Your task to perform on an android device: toggle location history Image 0: 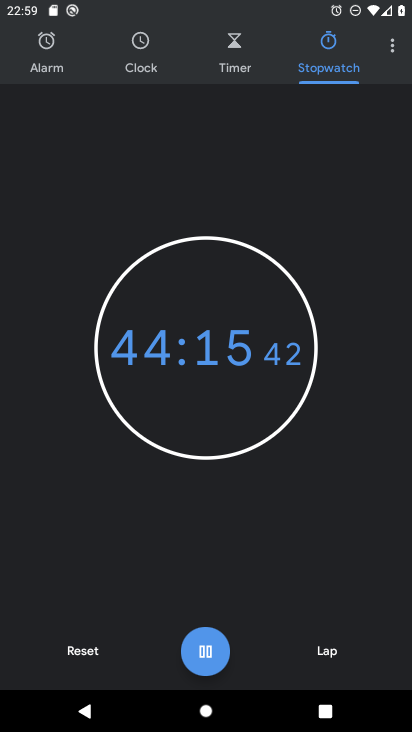
Step 0: press home button
Your task to perform on an android device: toggle location history Image 1: 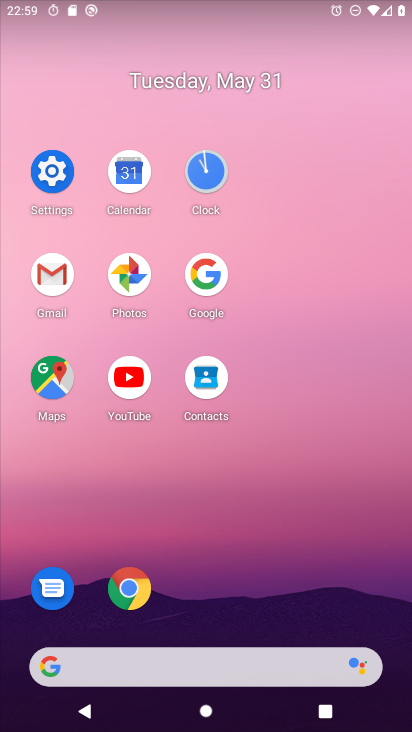
Step 1: click (57, 181)
Your task to perform on an android device: toggle location history Image 2: 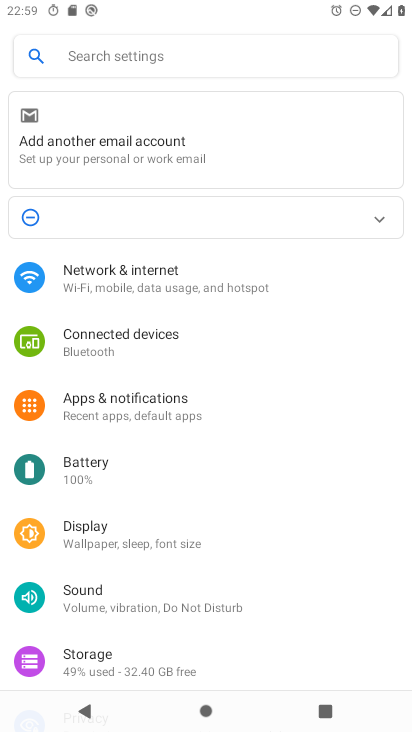
Step 2: drag from (213, 600) to (213, 243)
Your task to perform on an android device: toggle location history Image 3: 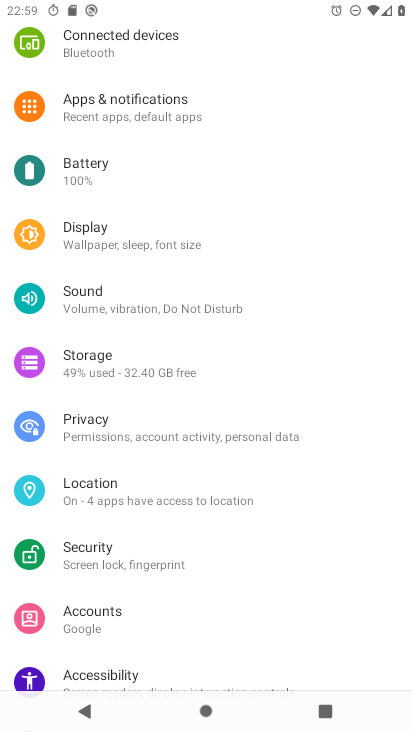
Step 3: click (175, 503)
Your task to perform on an android device: toggle location history Image 4: 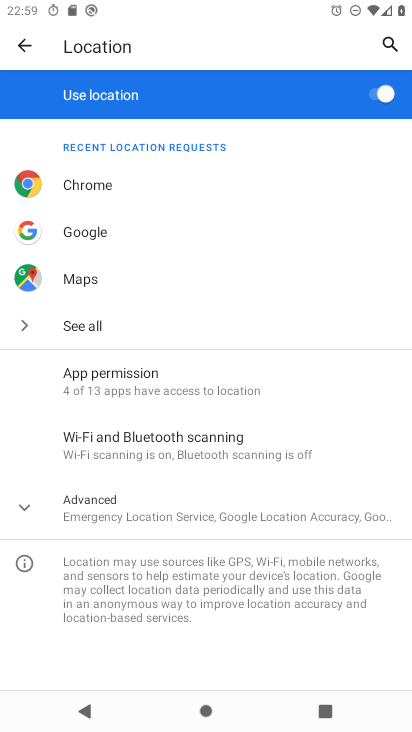
Step 4: click (175, 503)
Your task to perform on an android device: toggle location history Image 5: 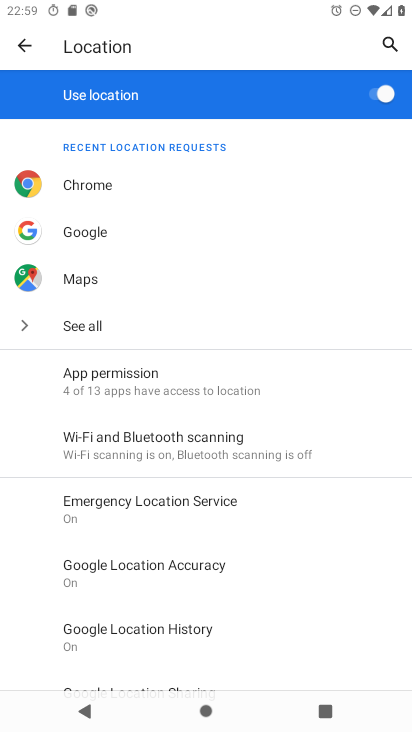
Step 5: click (167, 627)
Your task to perform on an android device: toggle location history Image 6: 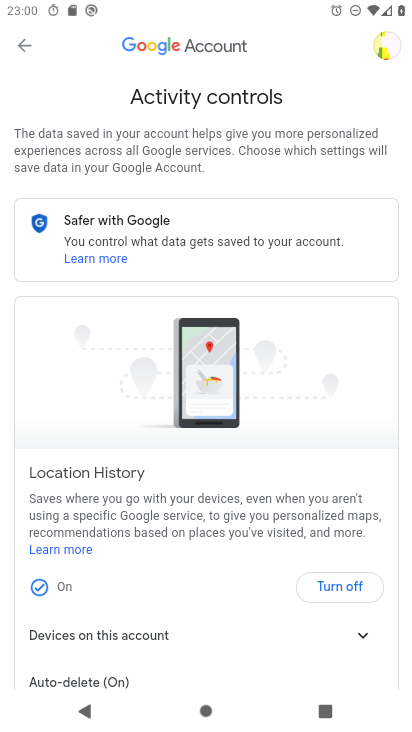
Step 6: drag from (262, 614) to (297, 174)
Your task to perform on an android device: toggle location history Image 7: 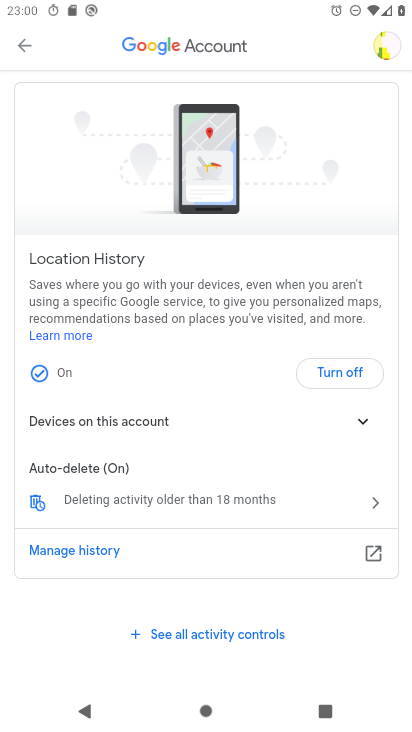
Step 7: click (327, 359)
Your task to perform on an android device: toggle location history Image 8: 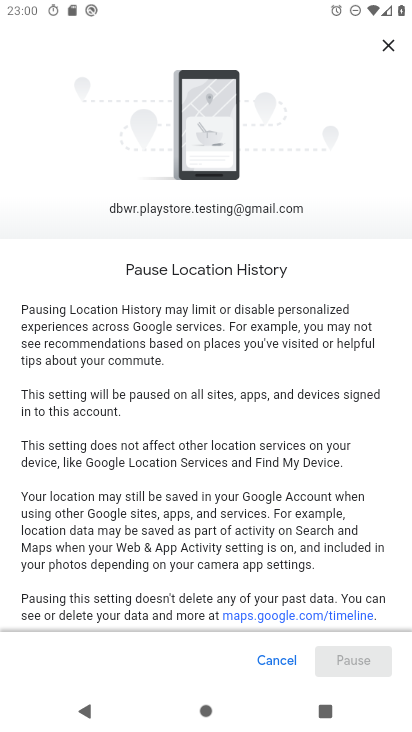
Step 8: drag from (317, 576) to (300, 142)
Your task to perform on an android device: toggle location history Image 9: 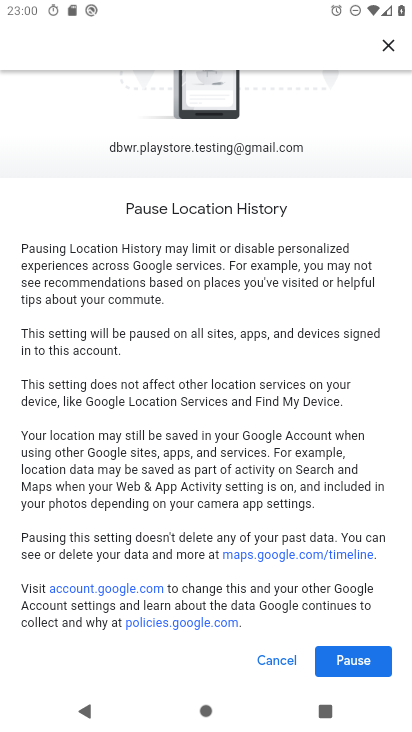
Step 9: click (353, 661)
Your task to perform on an android device: toggle location history Image 10: 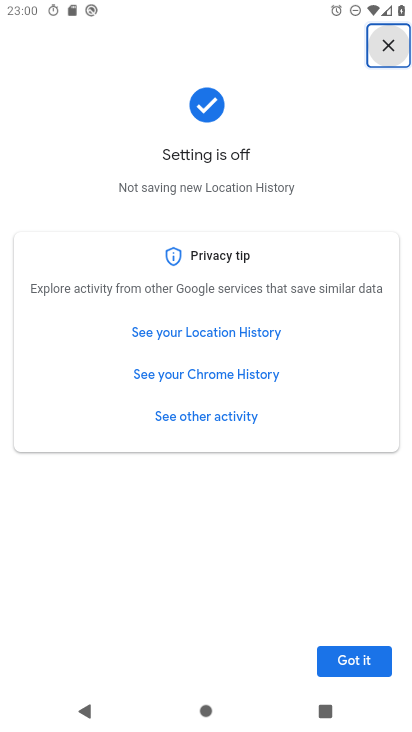
Step 10: click (361, 665)
Your task to perform on an android device: toggle location history Image 11: 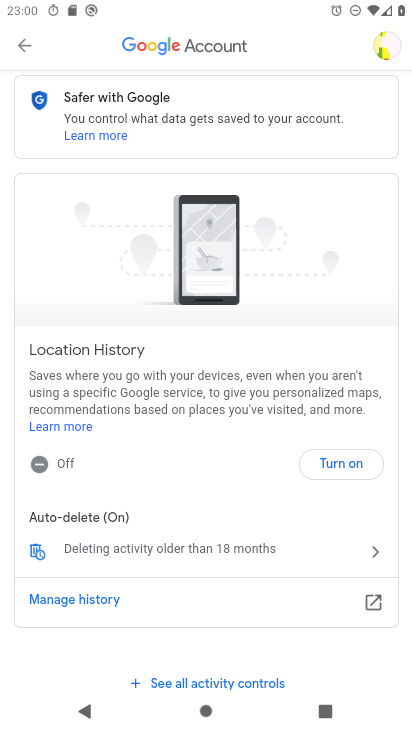
Step 11: task complete